Your task to perform on an android device: When is my next meeting? Image 0: 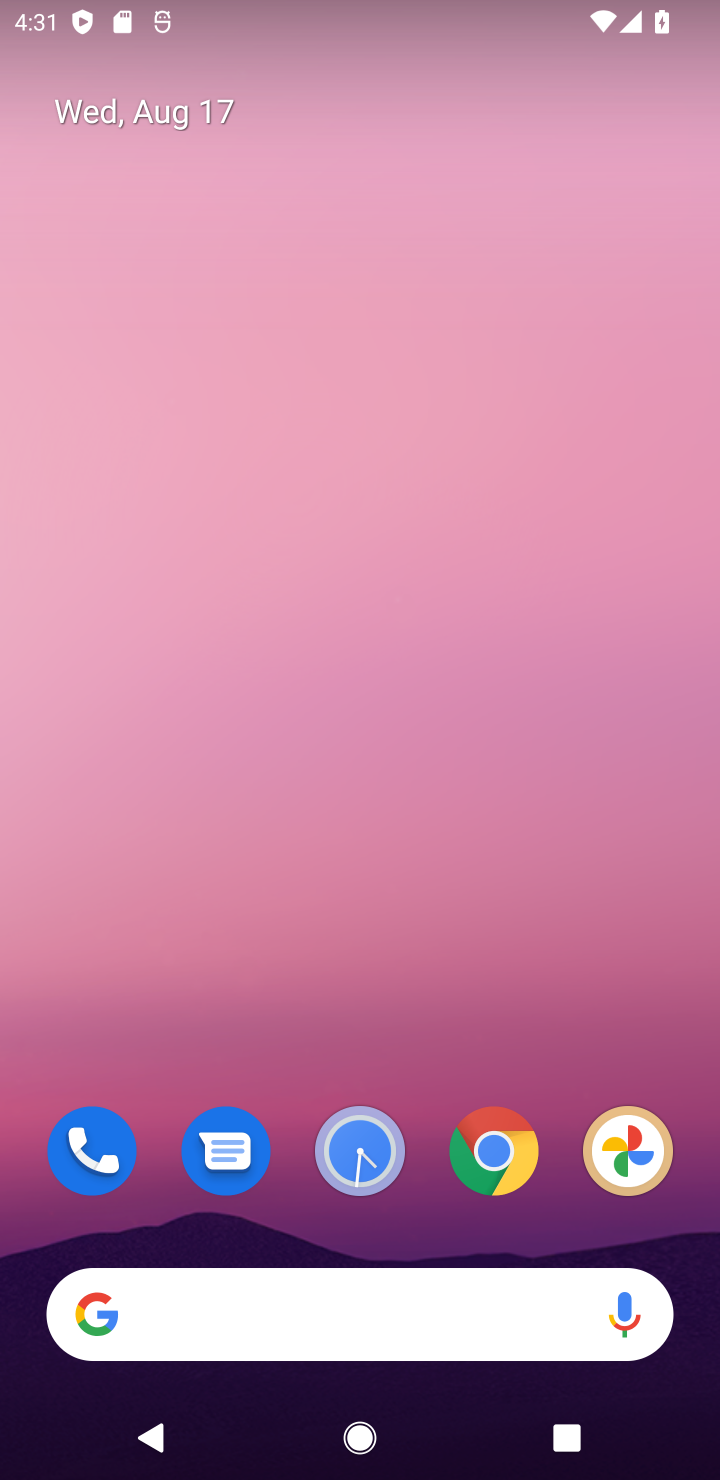
Step 0: drag from (411, 1225) to (536, 148)
Your task to perform on an android device: When is my next meeting? Image 1: 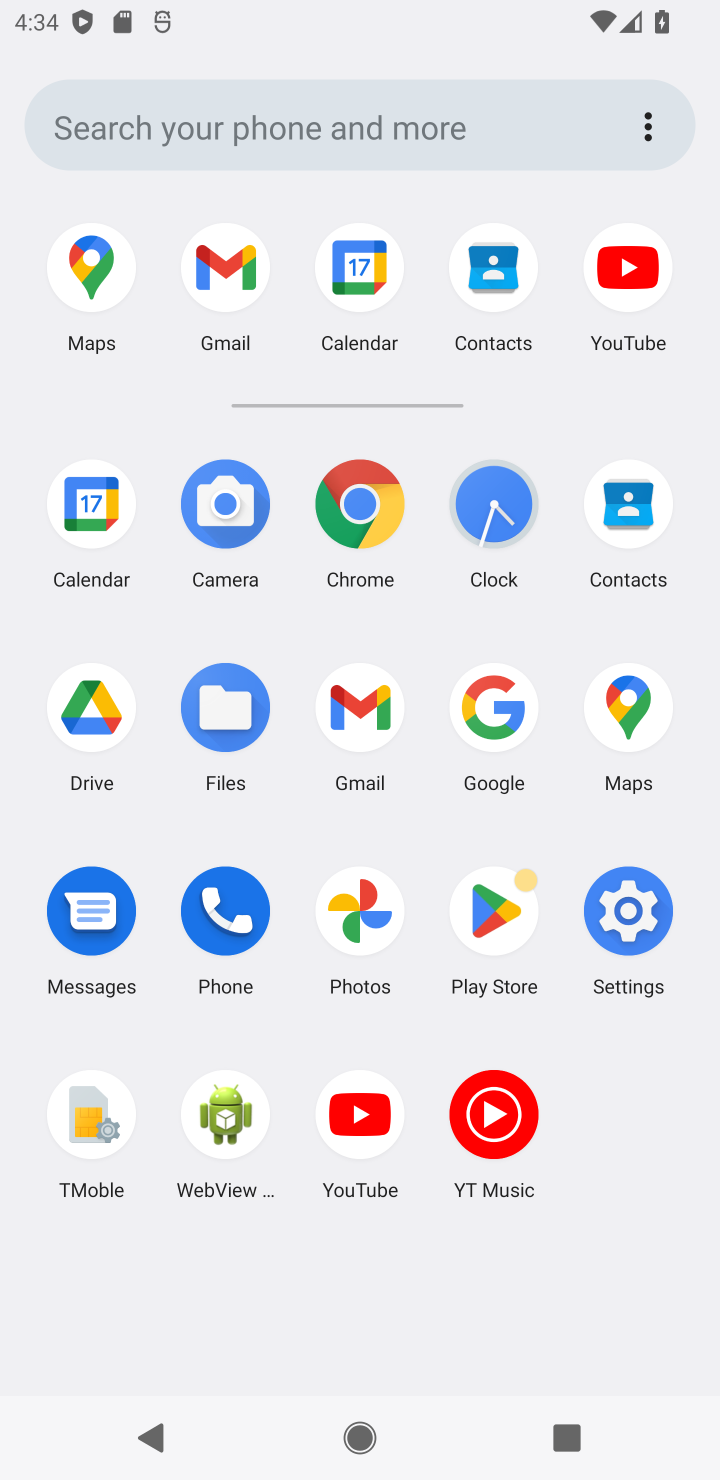
Step 1: click (383, 291)
Your task to perform on an android device: When is my next meeting? Image 2: 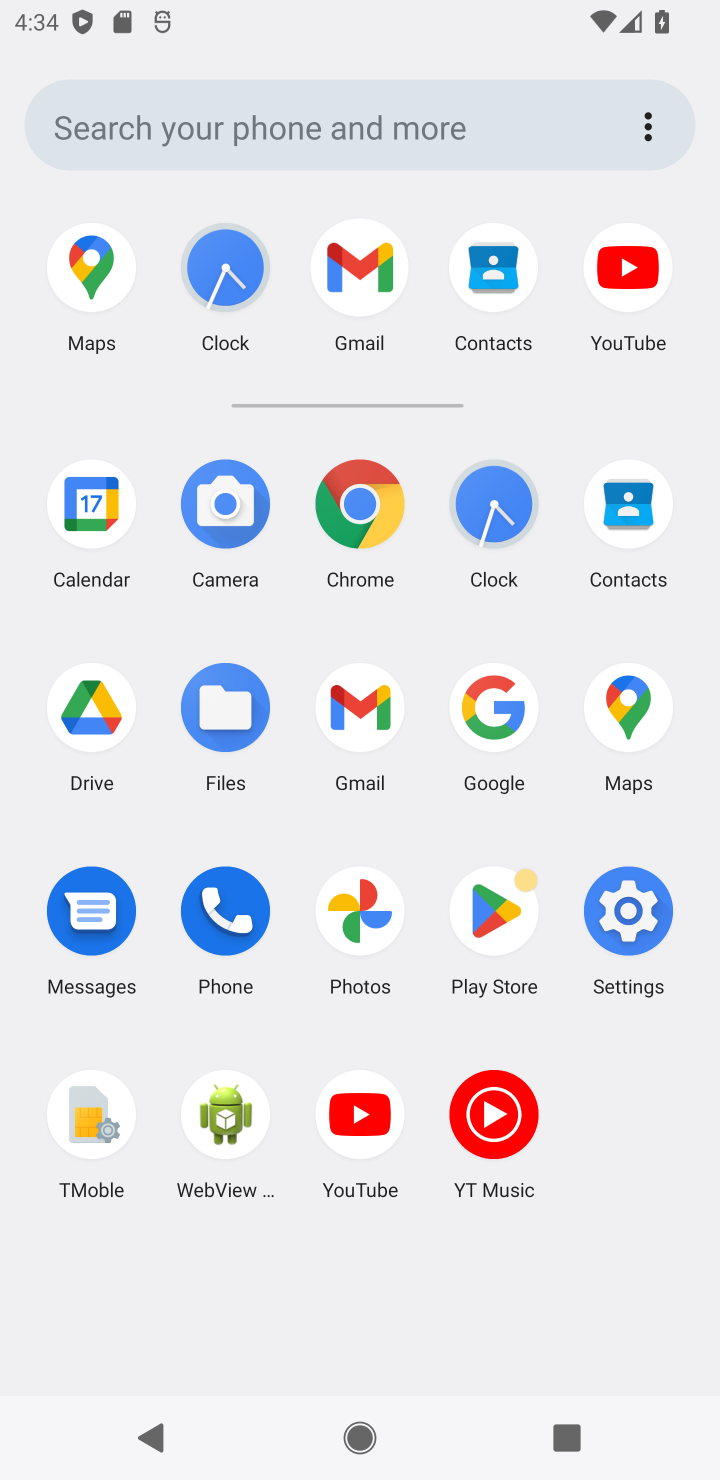
Step 2: task complete